Your task to perform on an android device: Search for a tv stand on Ikea Image 0: 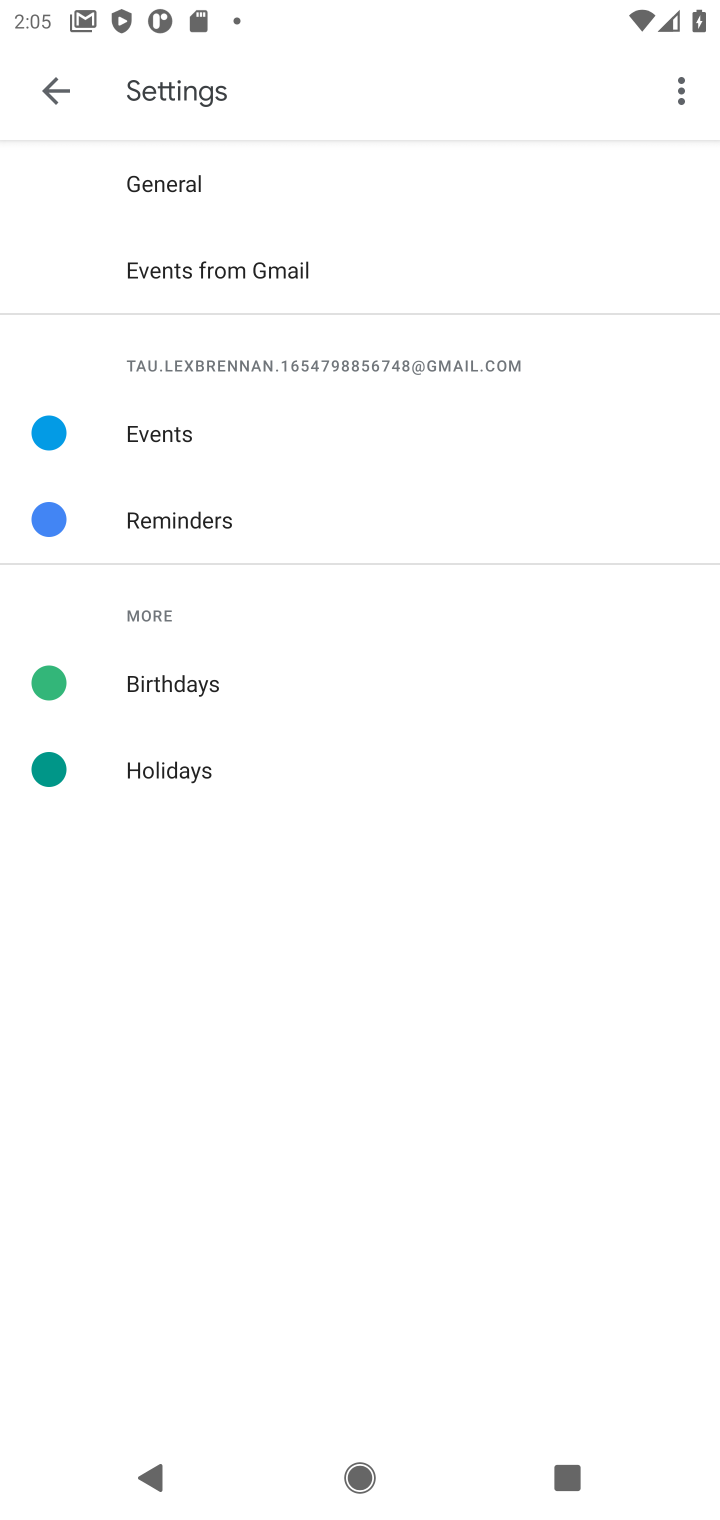
Step 0: press home button
Your task to perform on an android device: Search for a tv stand on Ikea Image 1: 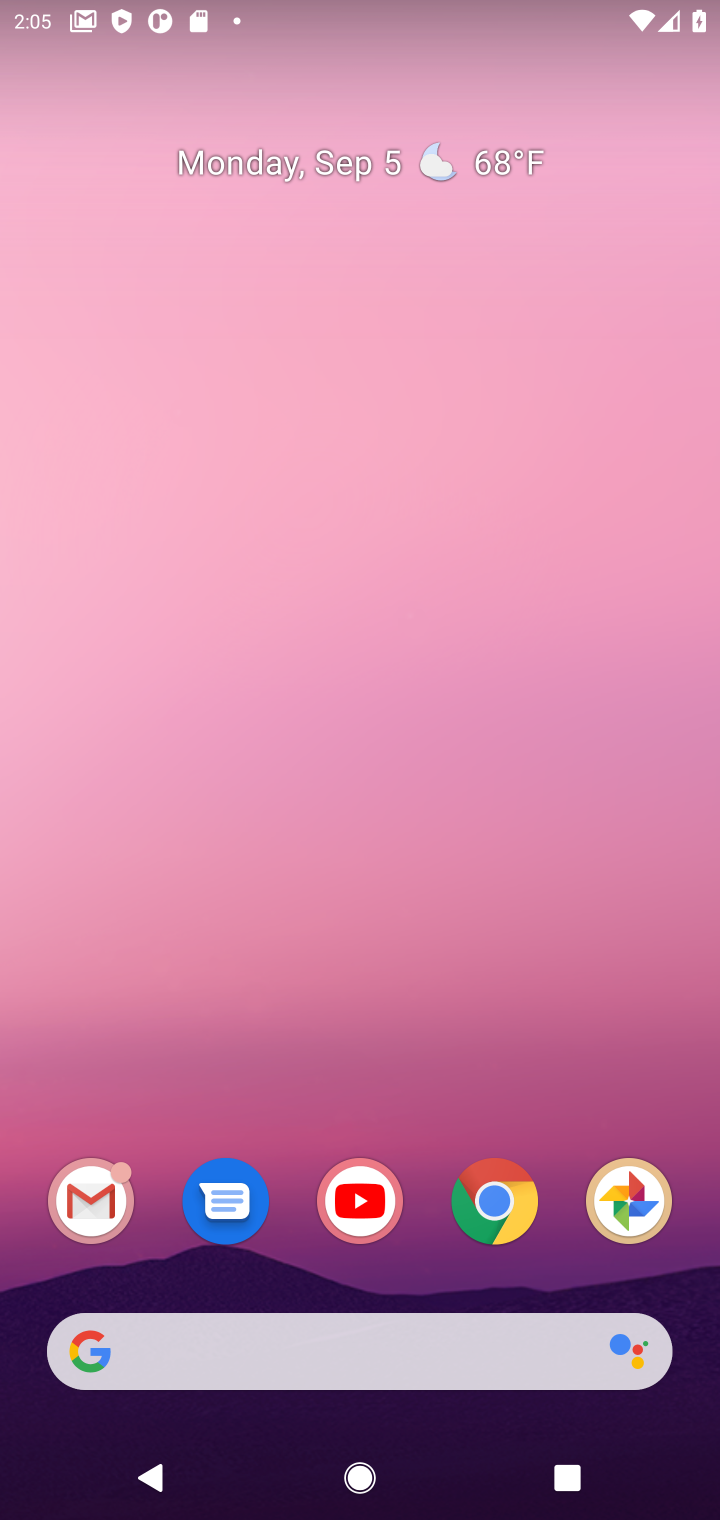
Step 1: click (491, 1207)
Your task to perform on an android device: Search for a tv stand on Ikea Image 2: 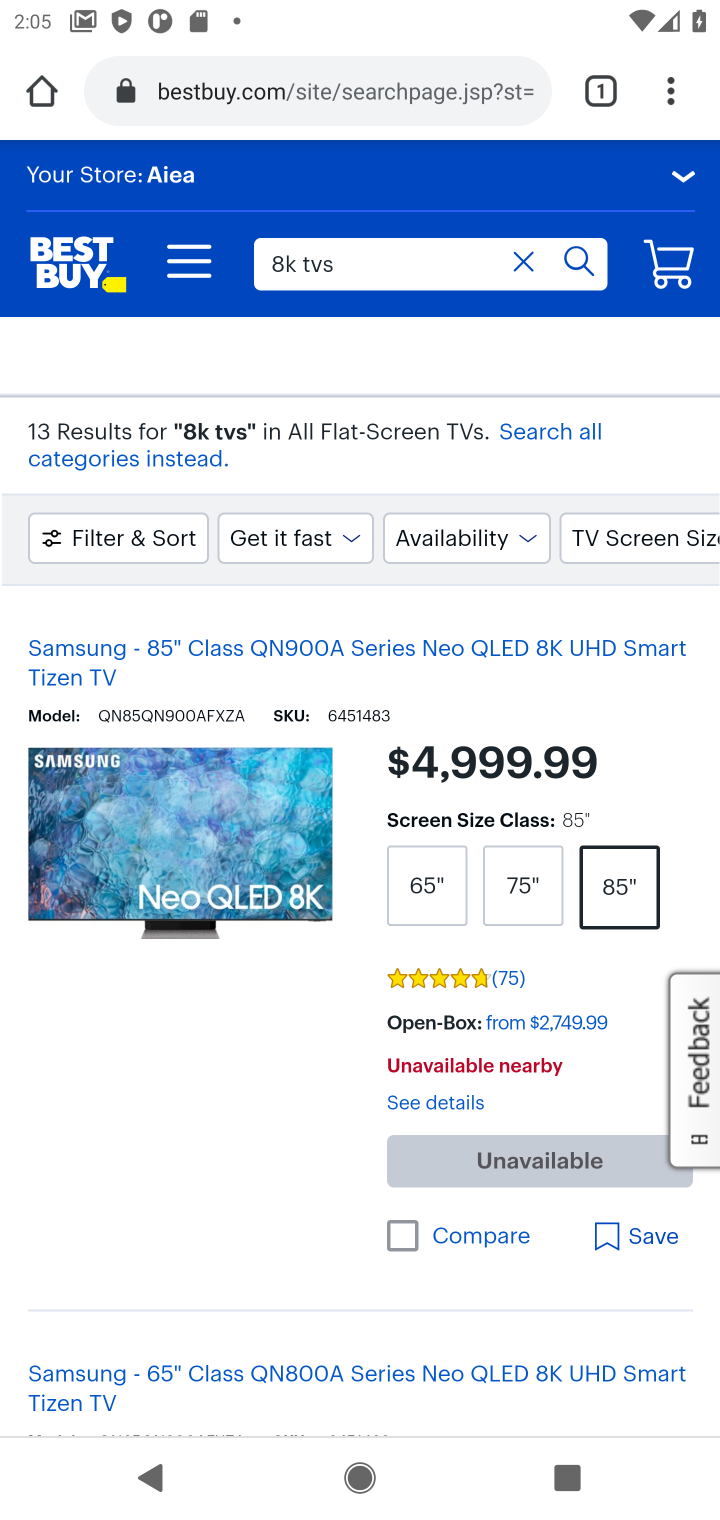
Step 2: click (491, 1207)
Your task to perform on an android device: Search for a tv stand on Ikea Image 3: 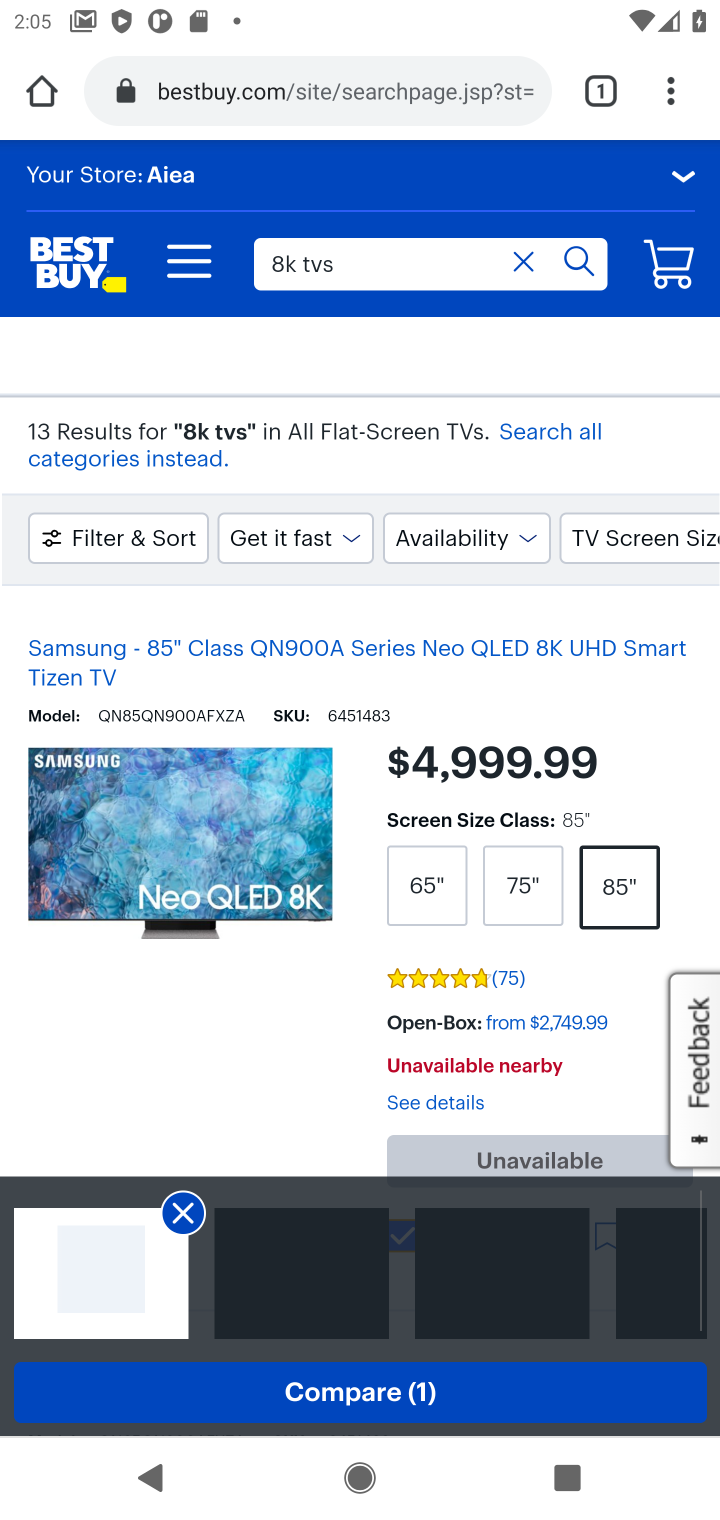
Step 3: click (421, 84)
Your task to perform on an android device: Search for a tv stand on Ikea Image 4: 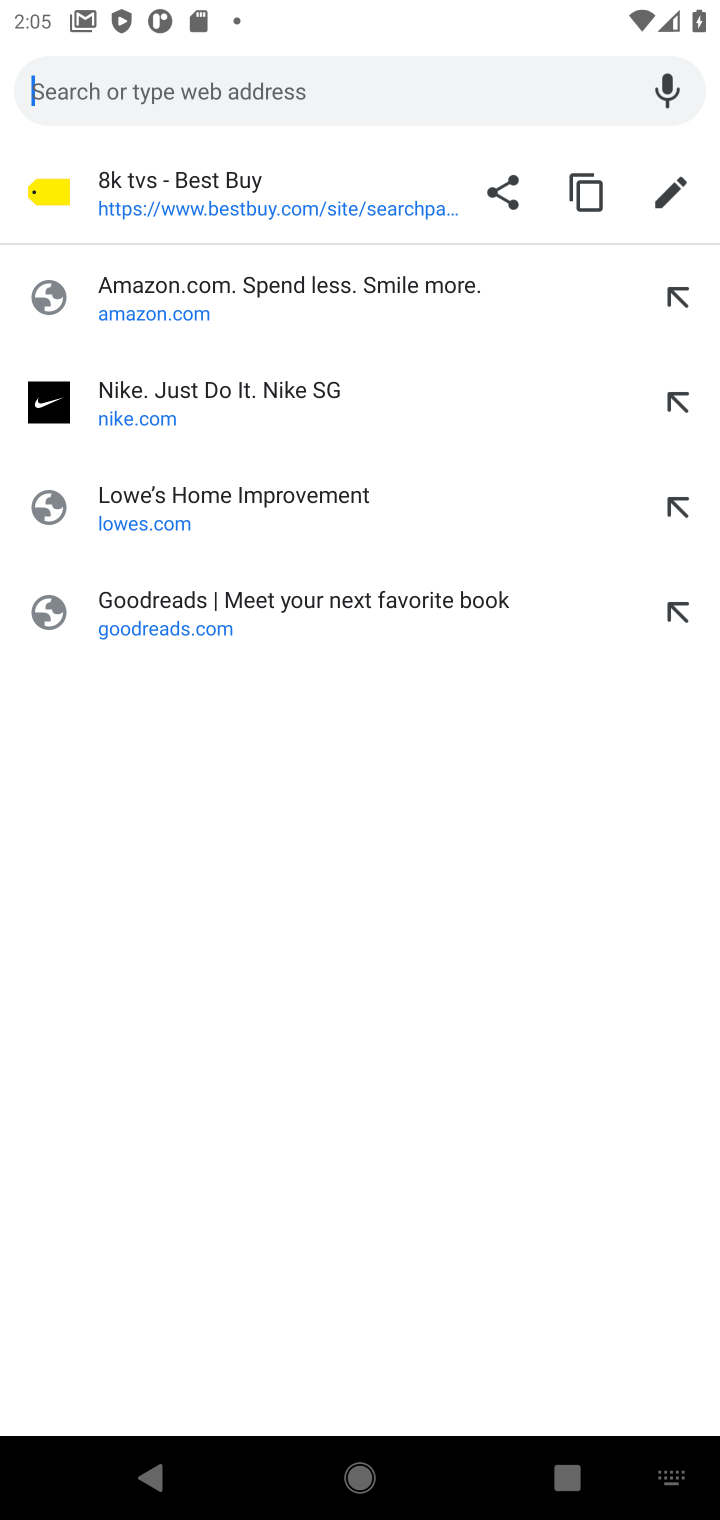
Step 4: type "Ikea"
Your task to perform on an android device: Search for a tv stand on Ikea Image 5: 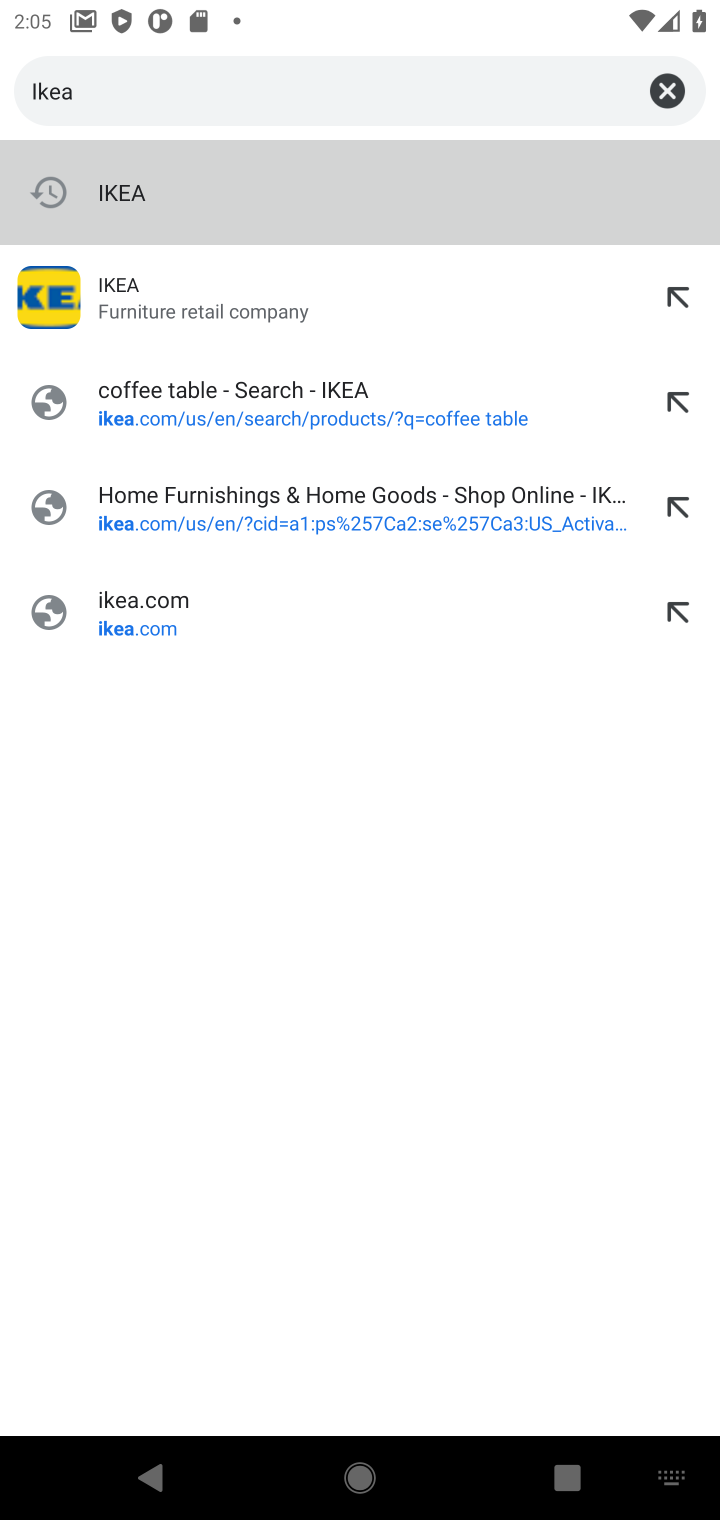
Step 5: press enter
Your task to perform on an android device: Search for a tv stand on Ikea Image 6: 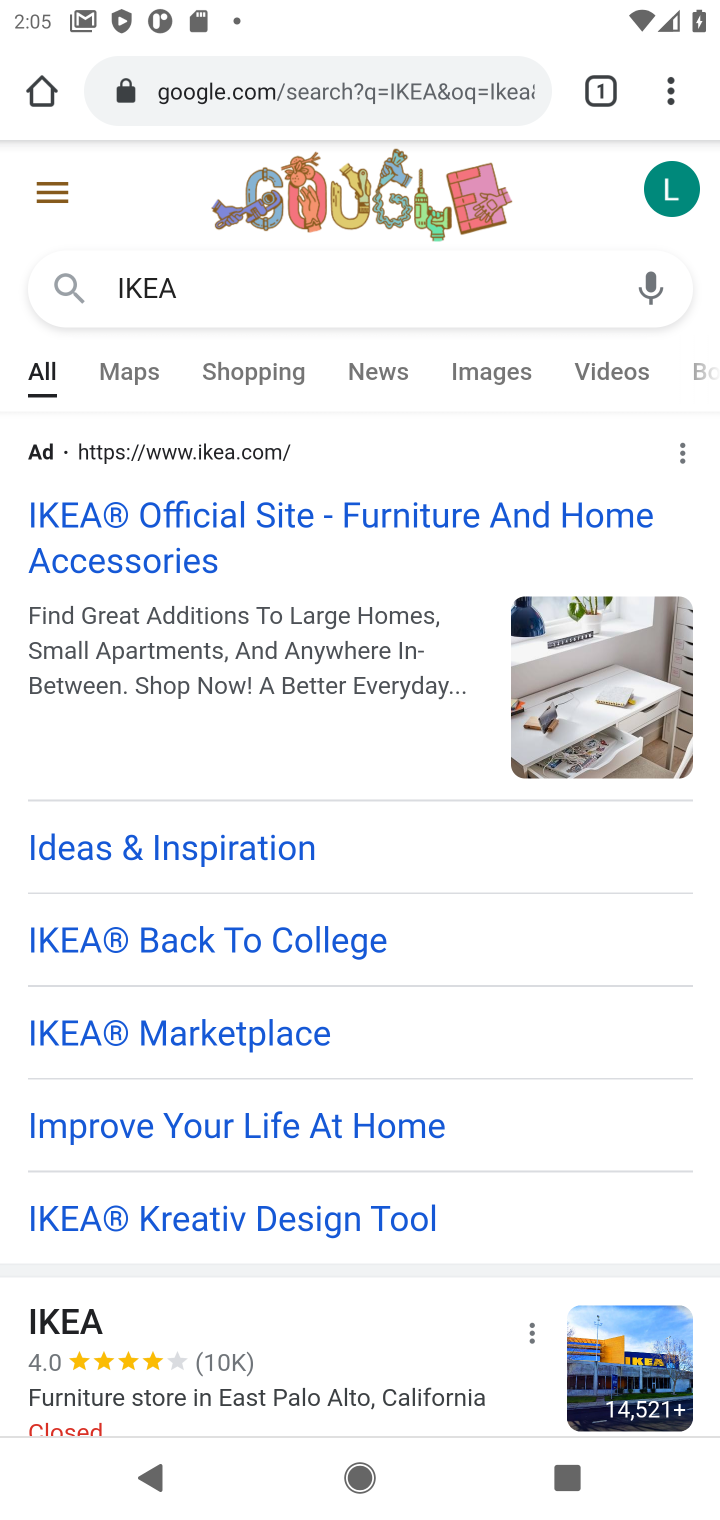
Step 6: click (231, 499)
Your task to perform on an android device: Search for a tv stand on Ikea Image 7: 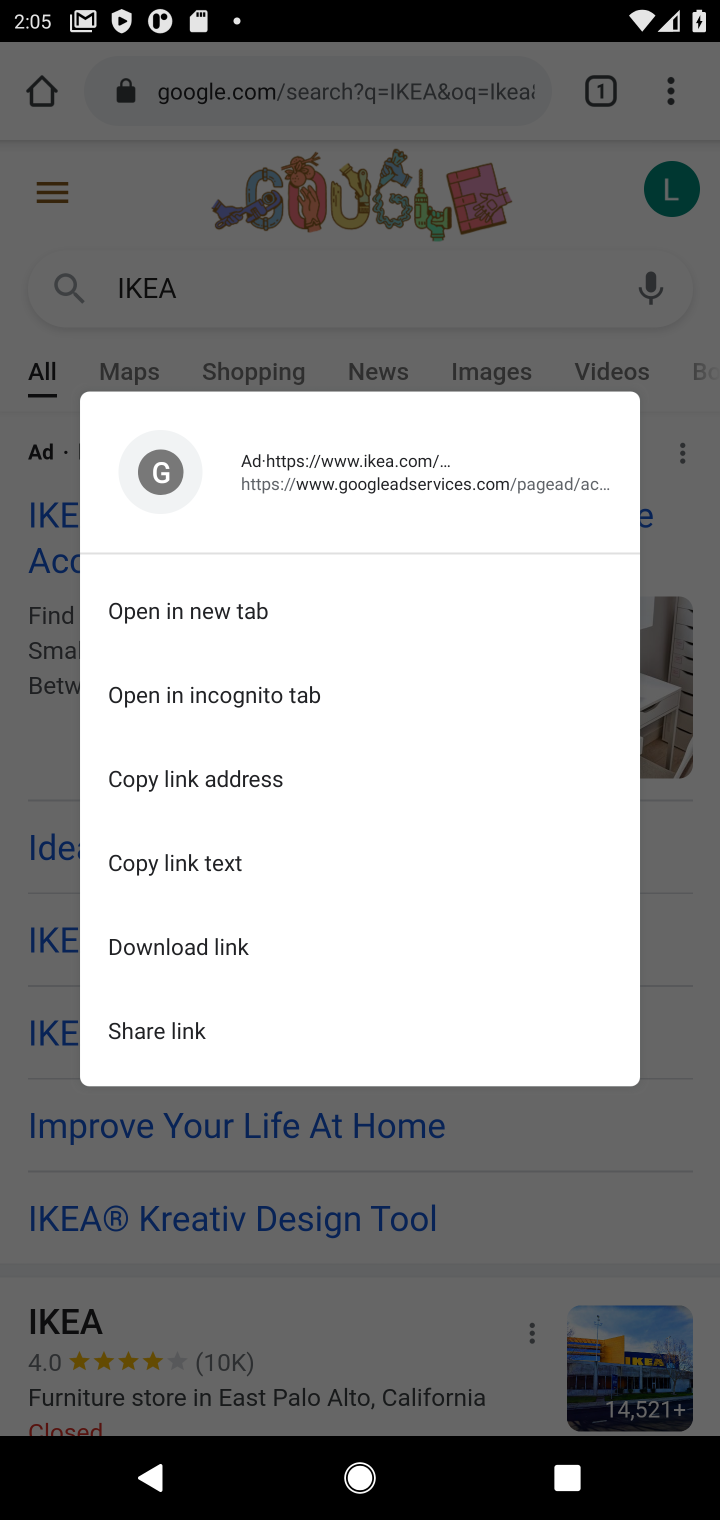
Step 7: click (580, 1225)
Your task to perform on an android device: Search for a tv stand on Ikea Image 8: 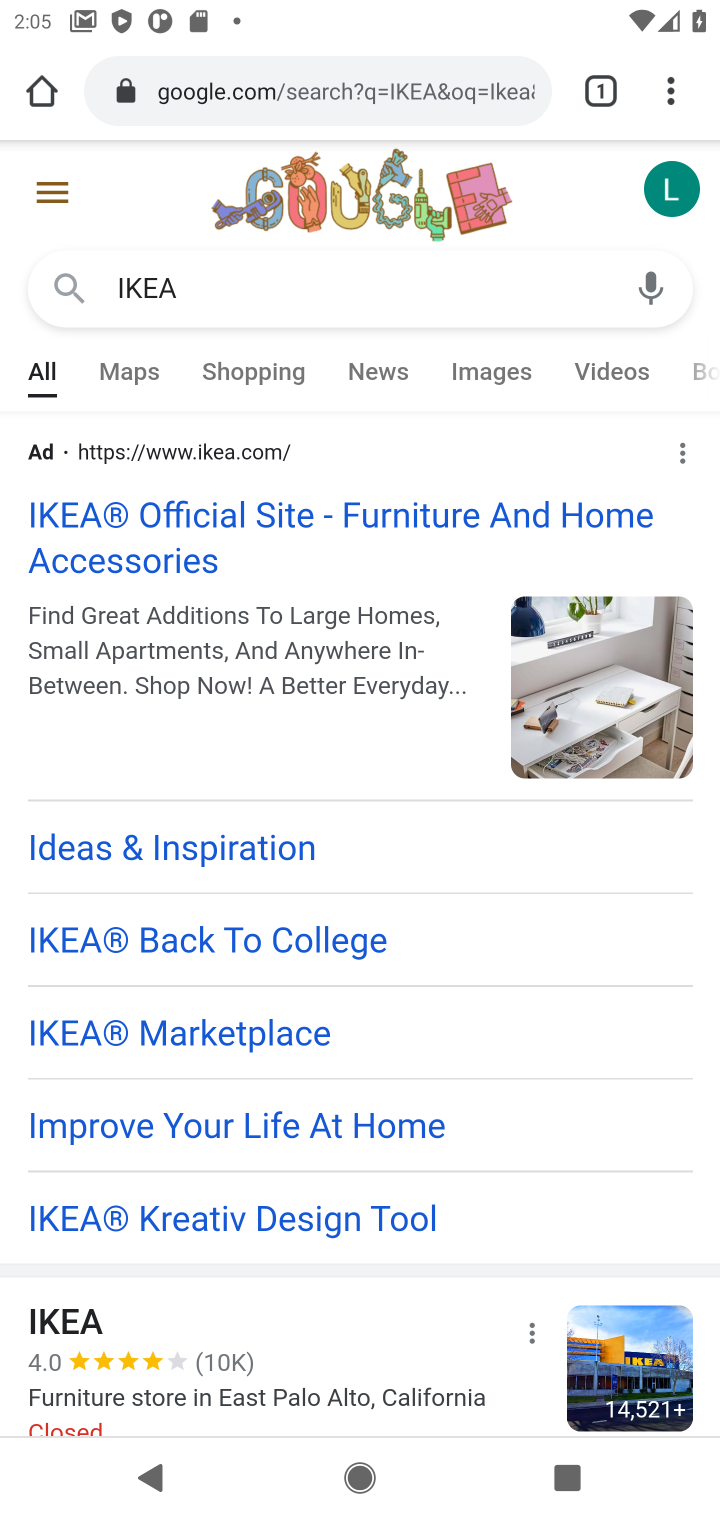
Step 8: click (66, 512)
Your task to perform on an android device: Search for a tv stand on Ikea Image 9: 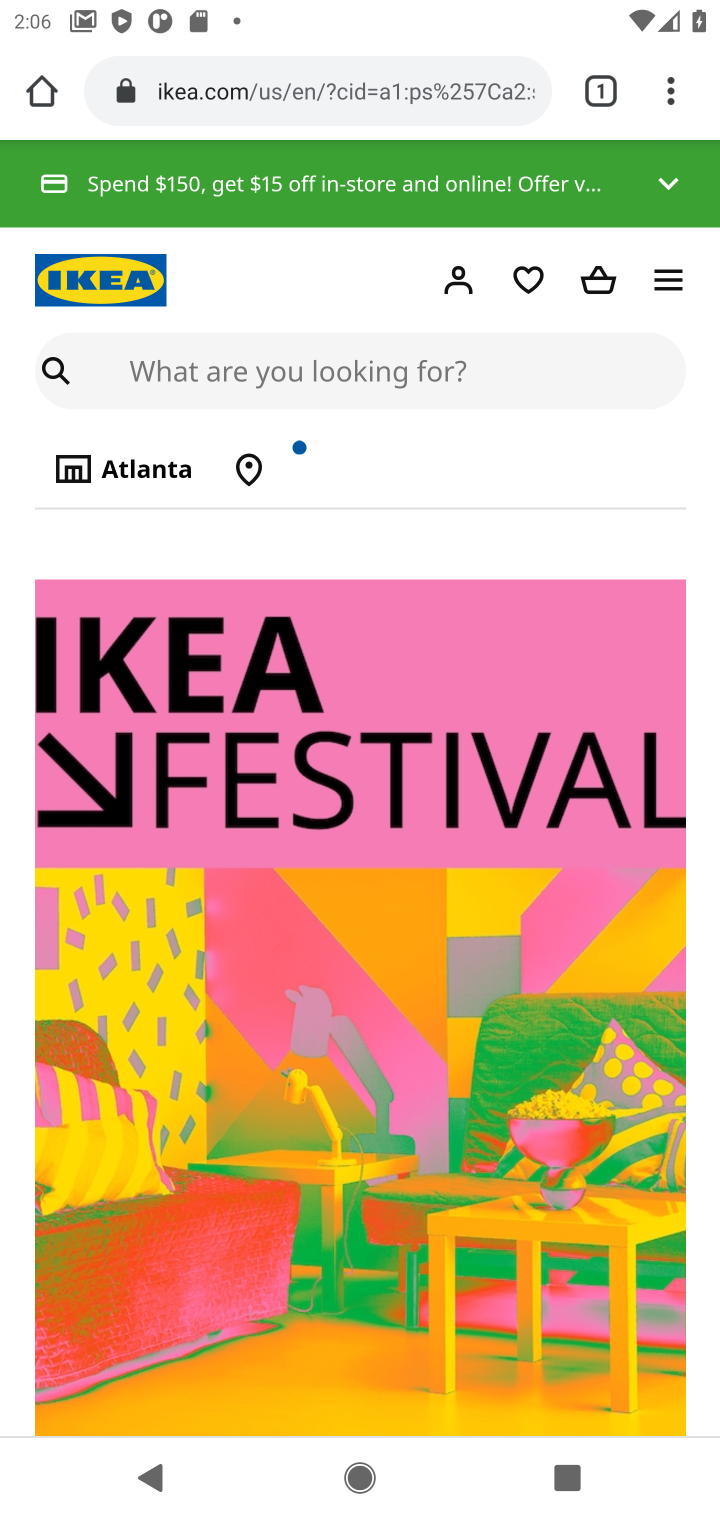
Step 9: click (266, 367)
Your task to perform on an android device: Search for a tv stand on Ikea Image 10: 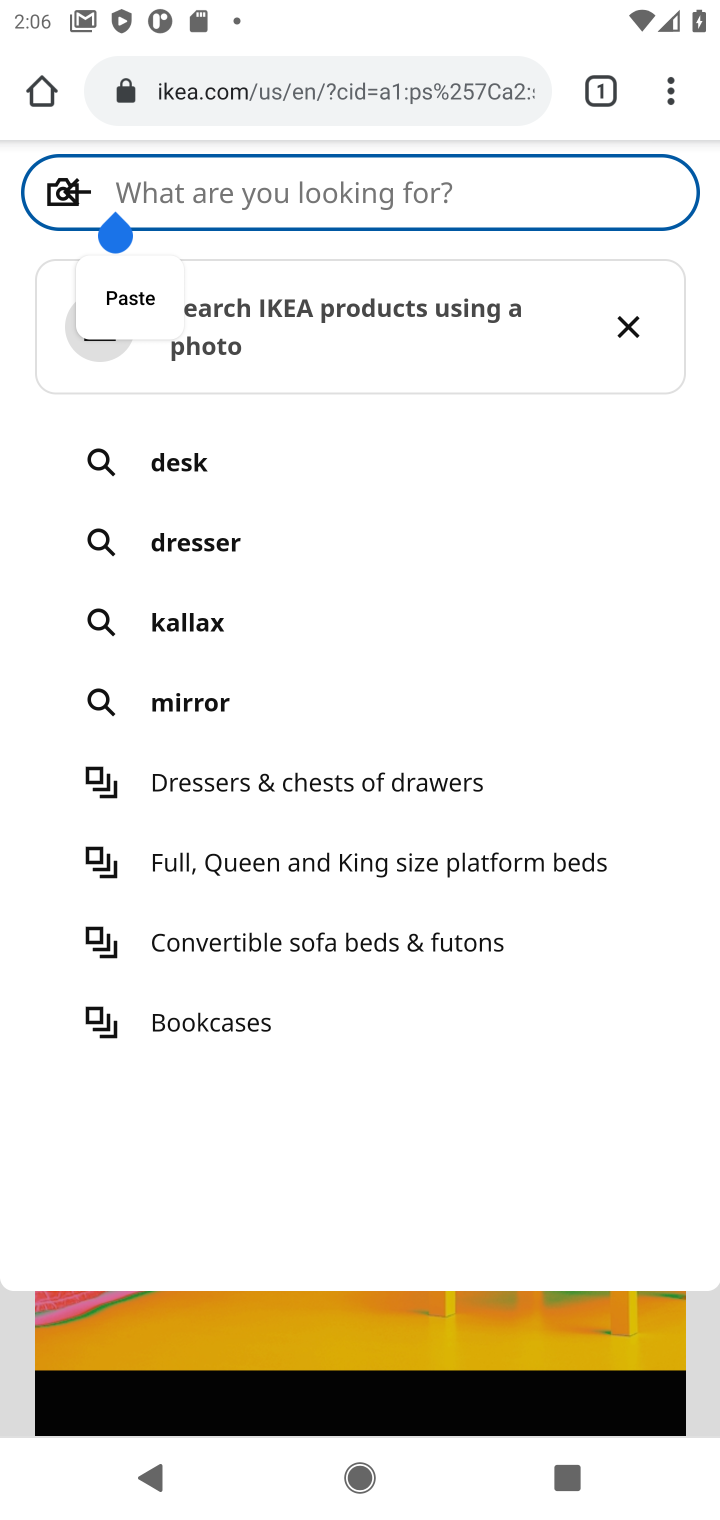
Step 10: type "tv stand"
Your task to perform on an android device: Search for a tv stand on Ikea Image 11: 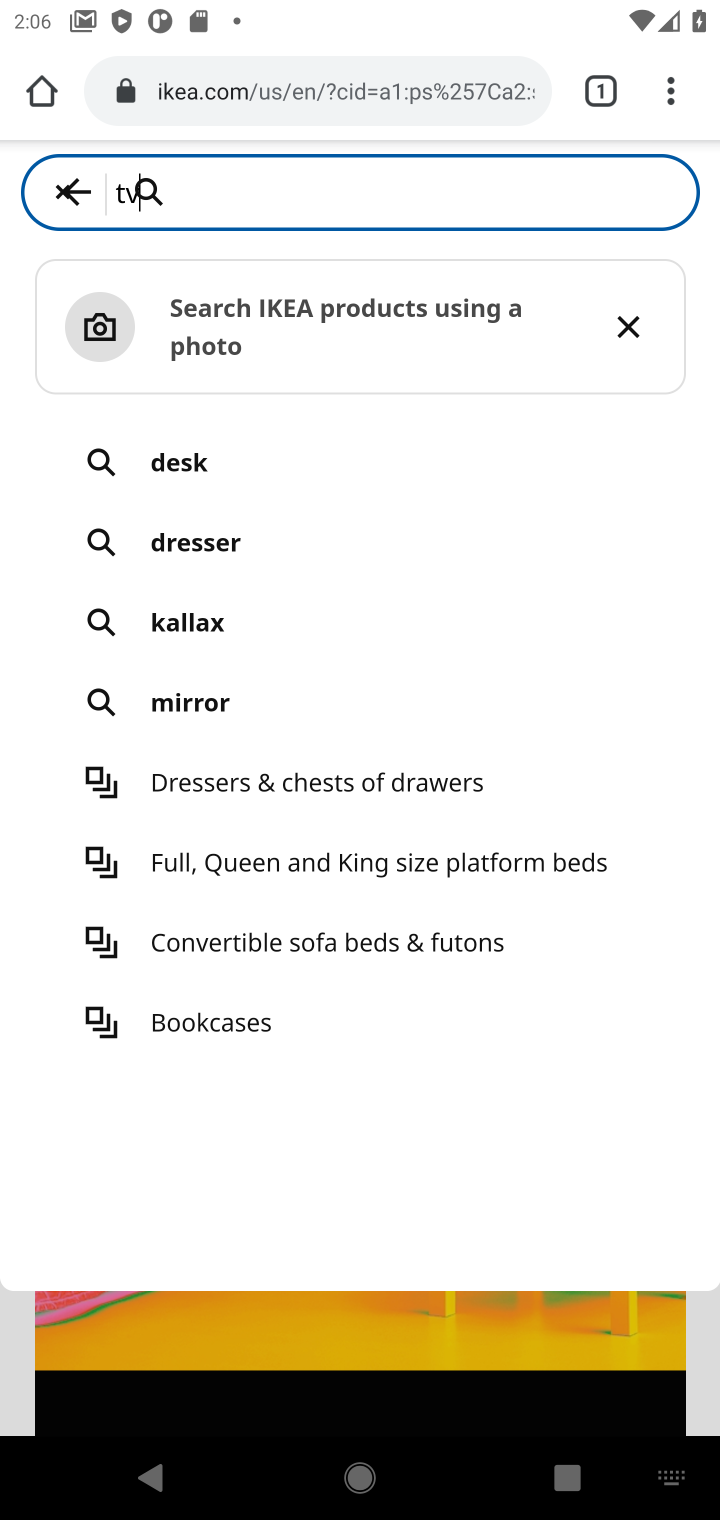
Step 11: press enter
Your task to perform on an android device: Search for a tv stand on Ikea Image 12: 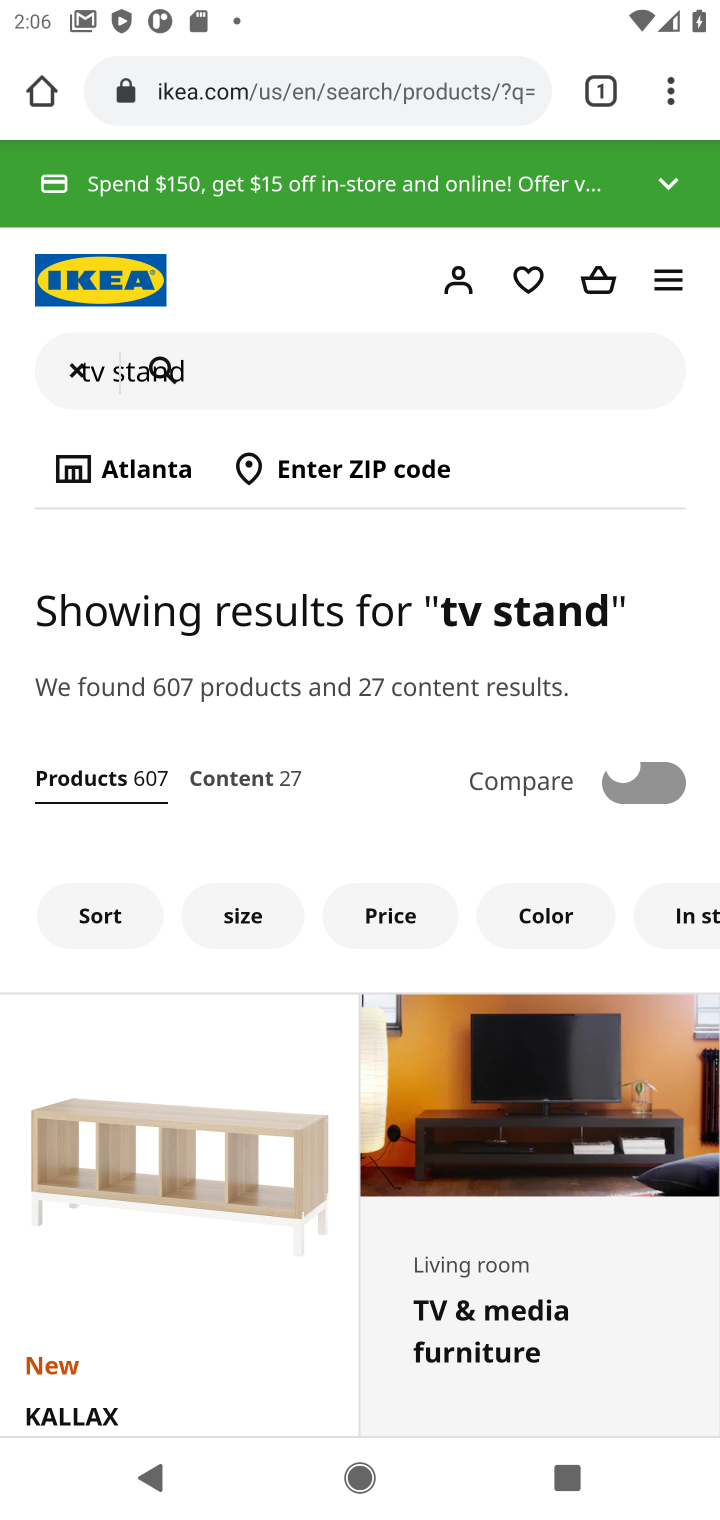
Step 12: task complete